Your task to perform on an android device: Go to network settings Image 0: 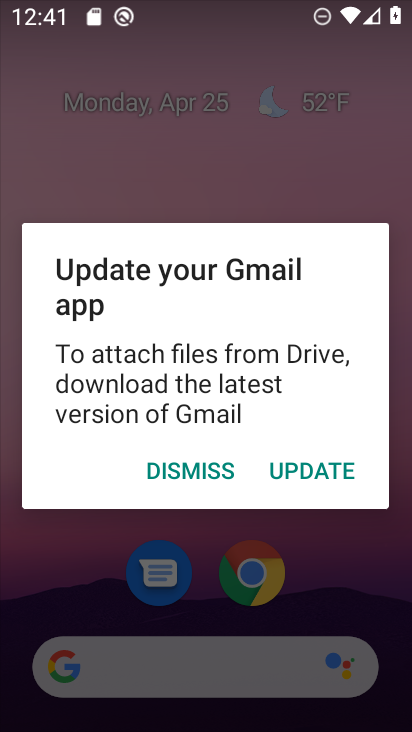
Step 0: press home button
Your task to perform on an android device: Go to network settings Image 1: 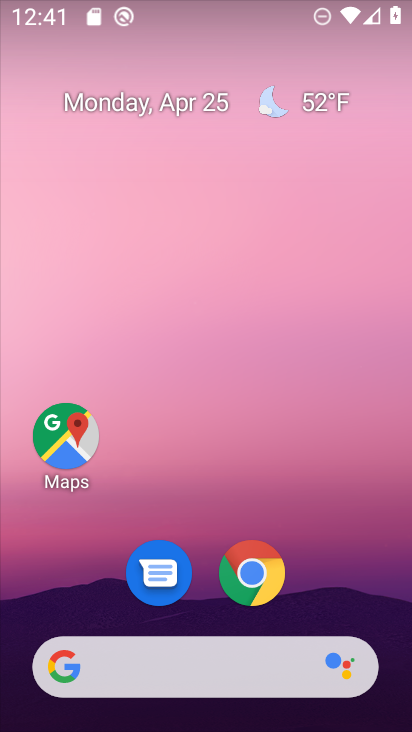
Step 1: drag from (216, 727) to (144, 47)
Your task to perform on an android device: Go to network settings Image 2: 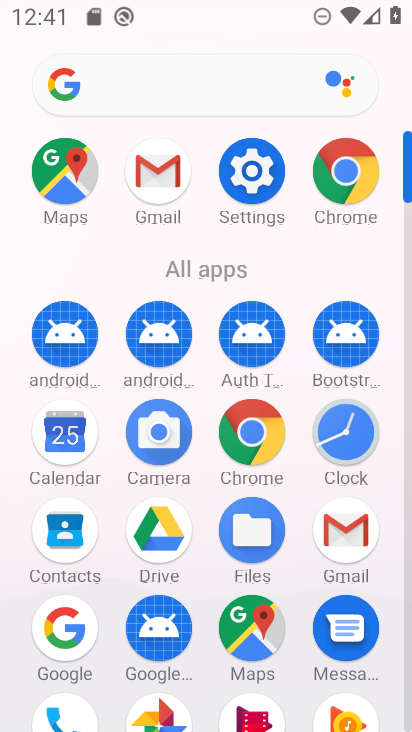
Step 2: click (260, 179)
Your task to perform on an android device: Go to network settings Image 3: 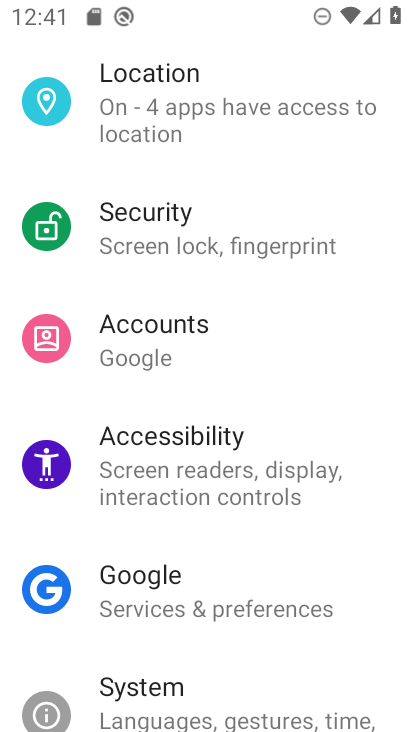
Step 3: drag from (218, 82) to (252, 479)
Your task to perform on an android device: Go to network settings Image 4: 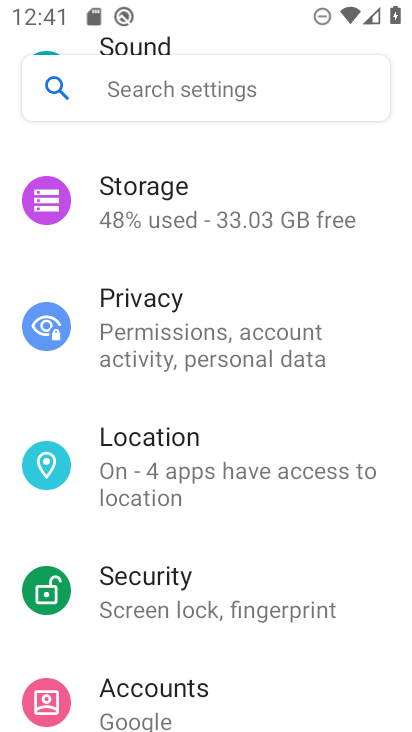
Step 4: drag from (241, 180) to (247, 588)
Your task to perform on an android device: Go to network settings Image 5: 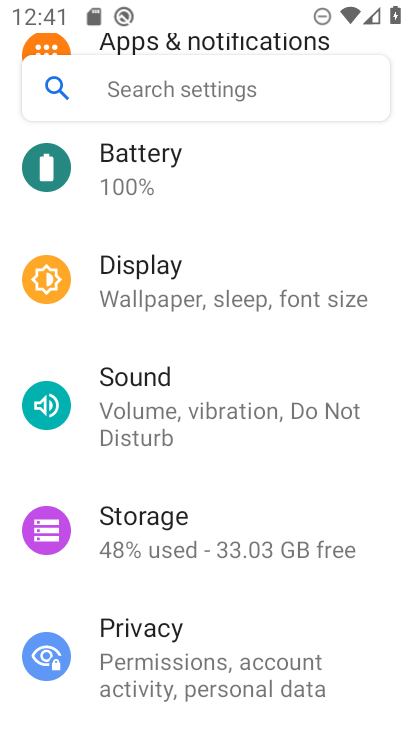
Step 5: drag from (218, 165) to (234, 532)
Your task to perform on an android device: Go to network settings Image 6: 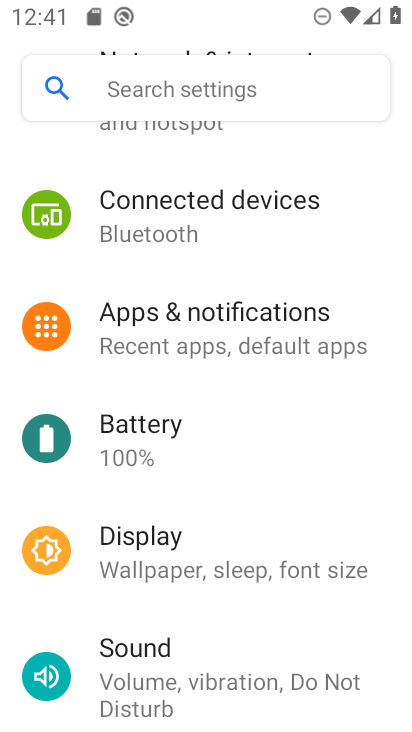
Step 6: drag from (239, 184) to (242, 579)
Your task to perform on an android device: Go to network settings Image 7: 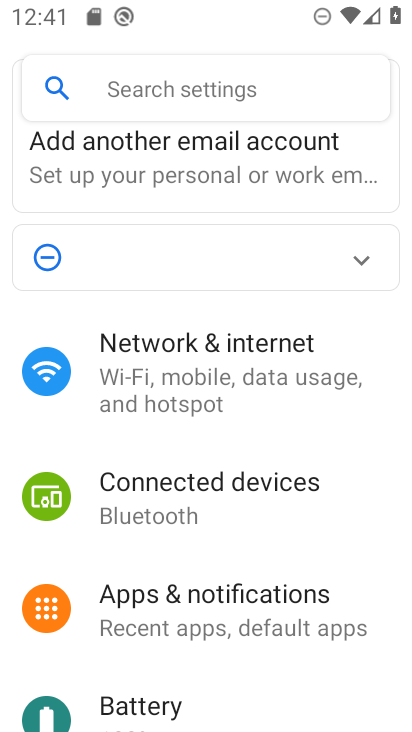
Step 7: click (214, 357)
Your task to perform on an android device: Go to network settings Image 8: 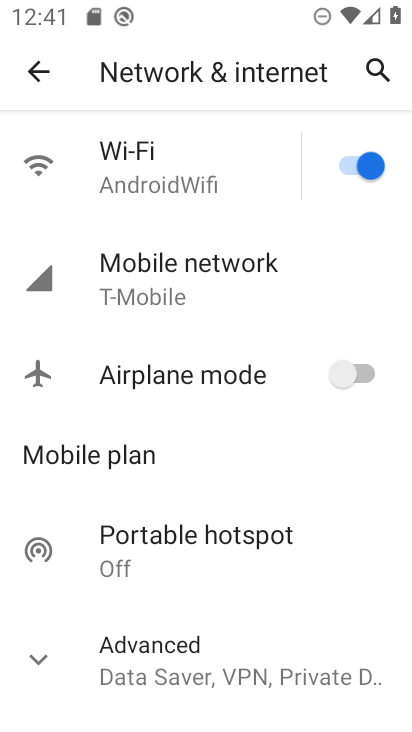
Step 8: task complete